Your task to perform on an android device: check the backup settings in the google photos Image 0: 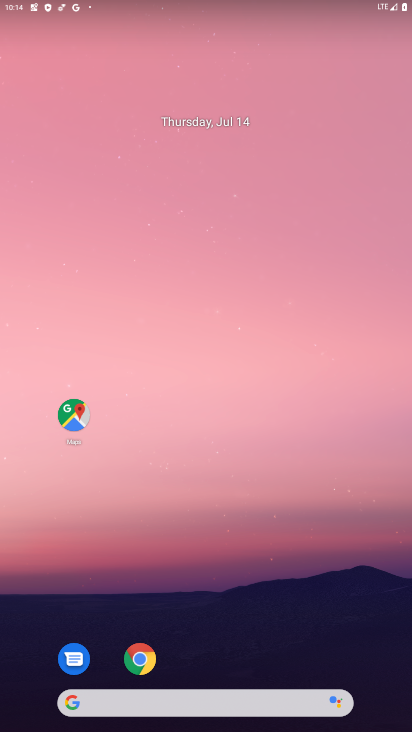
Step 0: drag from (317, 605) to (263, 48)
Your task to perform on an android device: check the backup settings in the google photos Image 1: 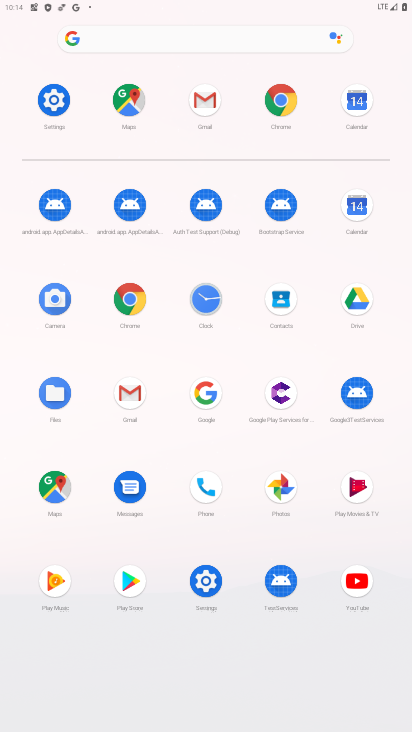
Step 1: click (279, 488)
Your task to perform on an android device: check the backup settings in the google photos Image 2: 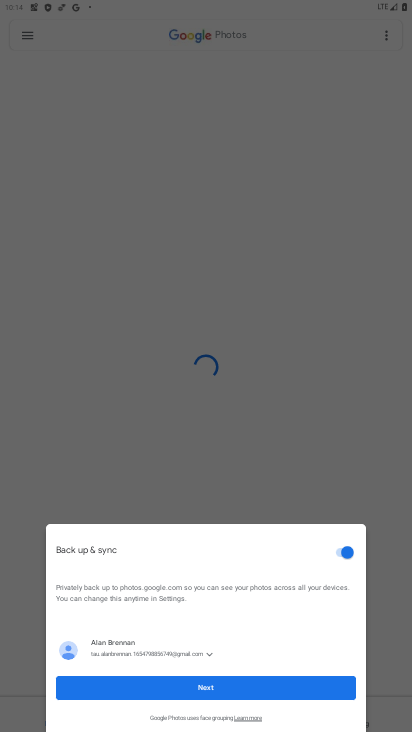
Step 2: click (258, 686)
Your task to perform on an android device: check the backup settings in the google photos Image 3: 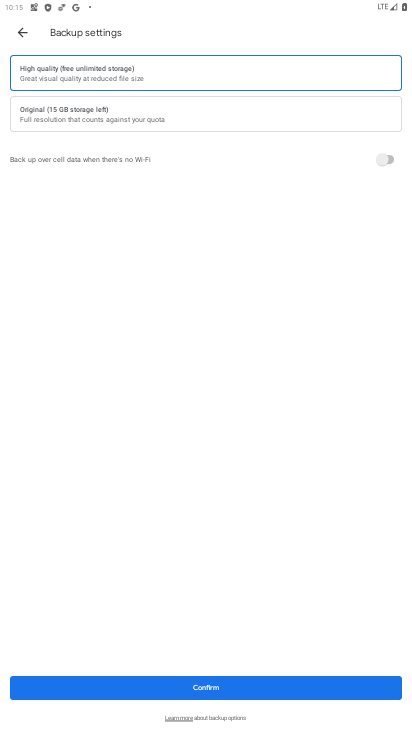
Step 3: task complete